Your task to perform on an android device: Search for macbook pro 13 inch on walmart, select the first entry, add it to the cart, then select checkout. Image 0: 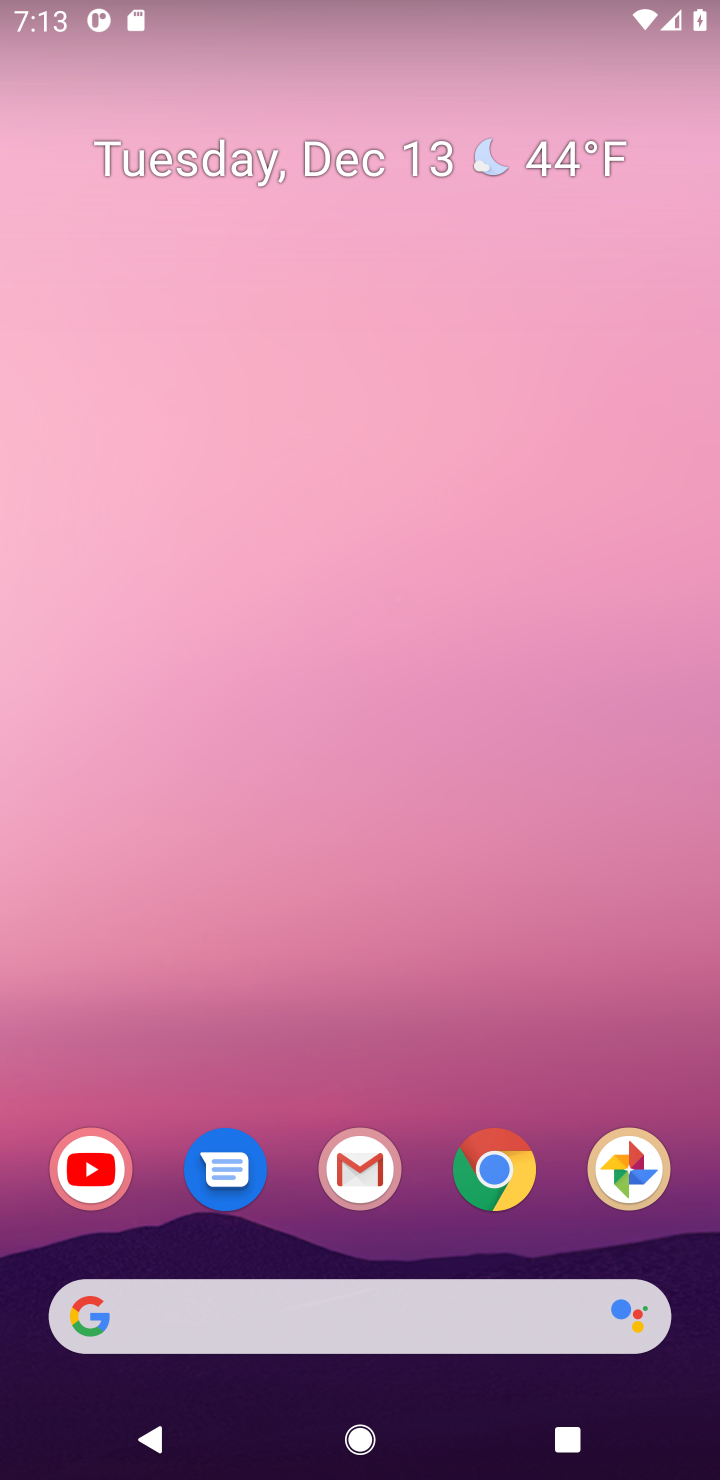
Step 0: click (511, 1159)
Your task to perform on an android device: Search for macbook pro 13 inch on walmart, select the first entry, add it to the cart, then select checkout. Image 1: 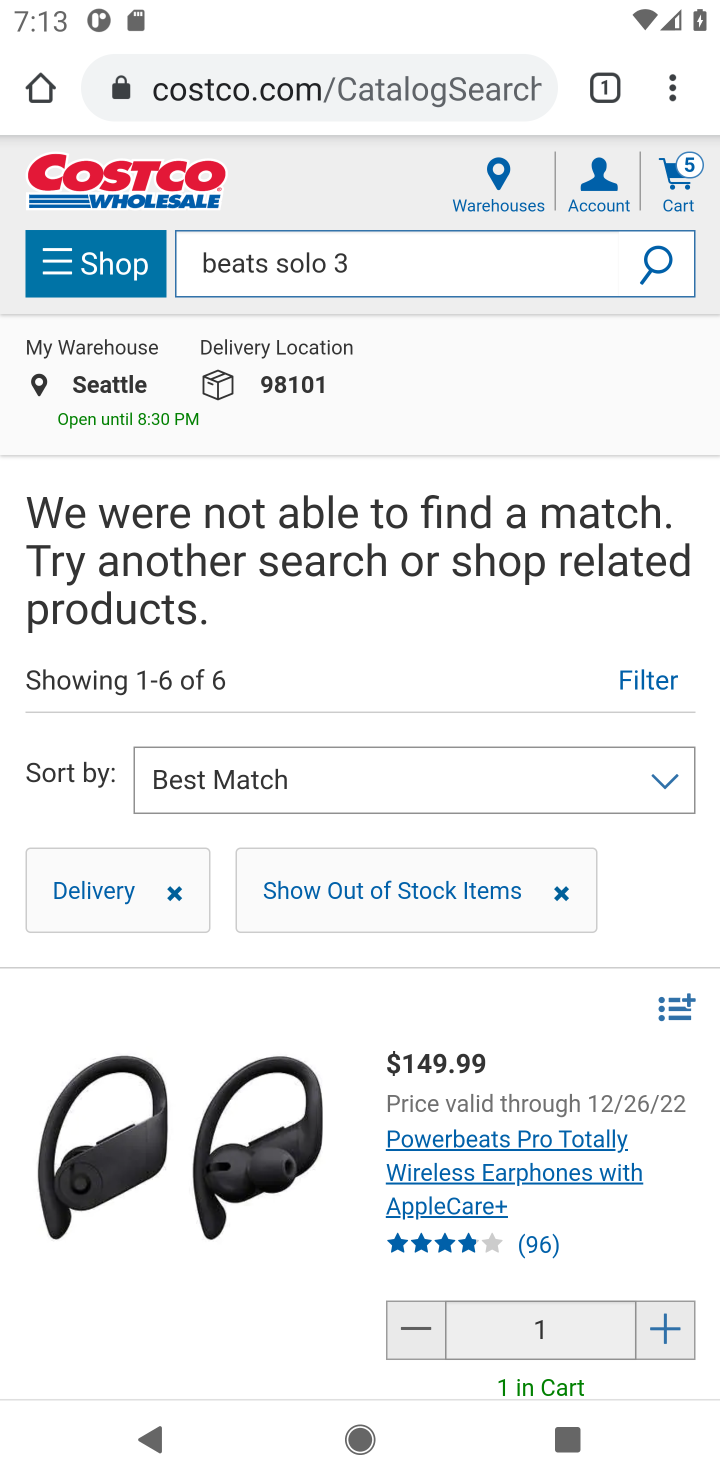
Step 1: click (365, 80)
Your task to perform on an android device: Search for macbook pro 13 inch on walmart, select the first entry, add it to the cart, then select checkout. Image 2: 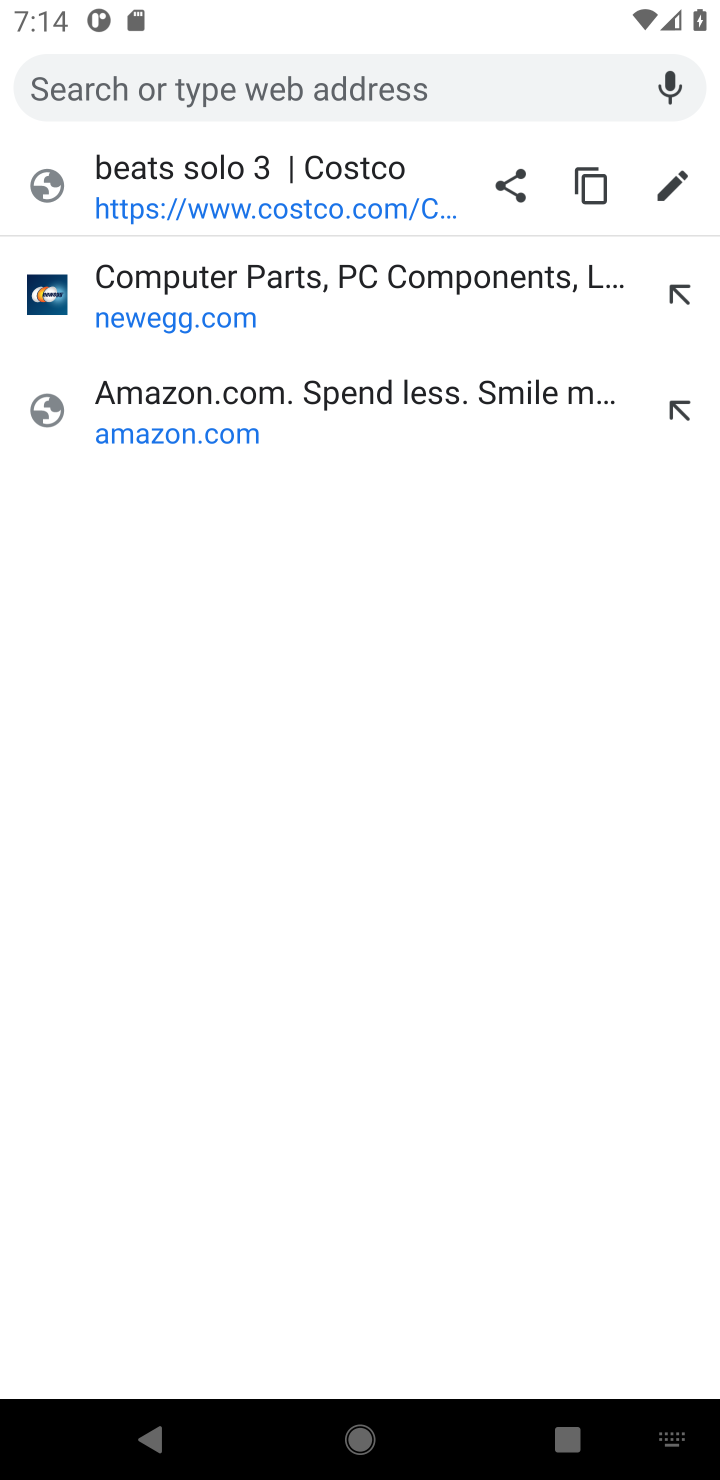
Step 2: type "walmart"
Your task to perform on an android device: Search for macbook pro 13 inch on walmart, select the first entry, add it to the cart, then select checkout. Image 3: 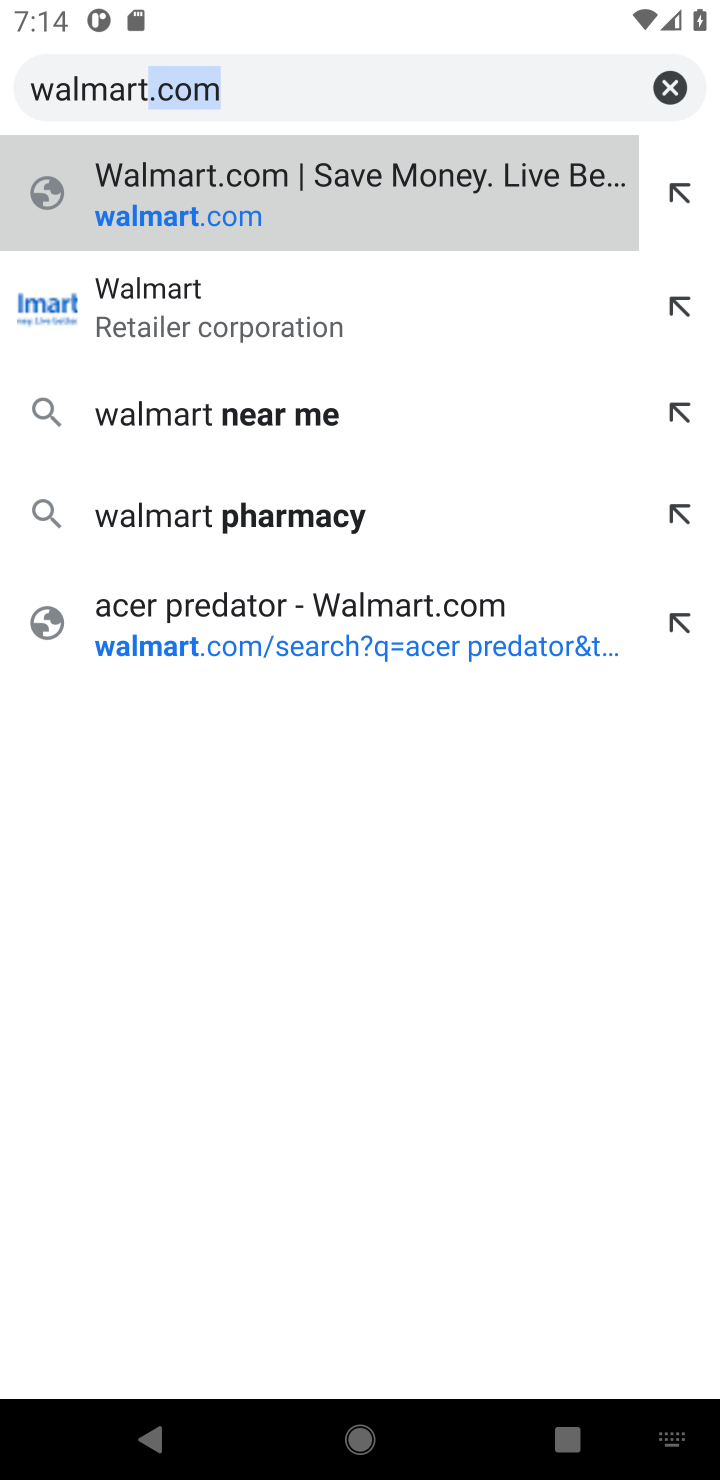
Step 3: click (318, 180)
Your task to perform on an android device: Search for macbook pro 13 inch on walmart, select the first entry, add it to the cart, then select checkout. Image 4: 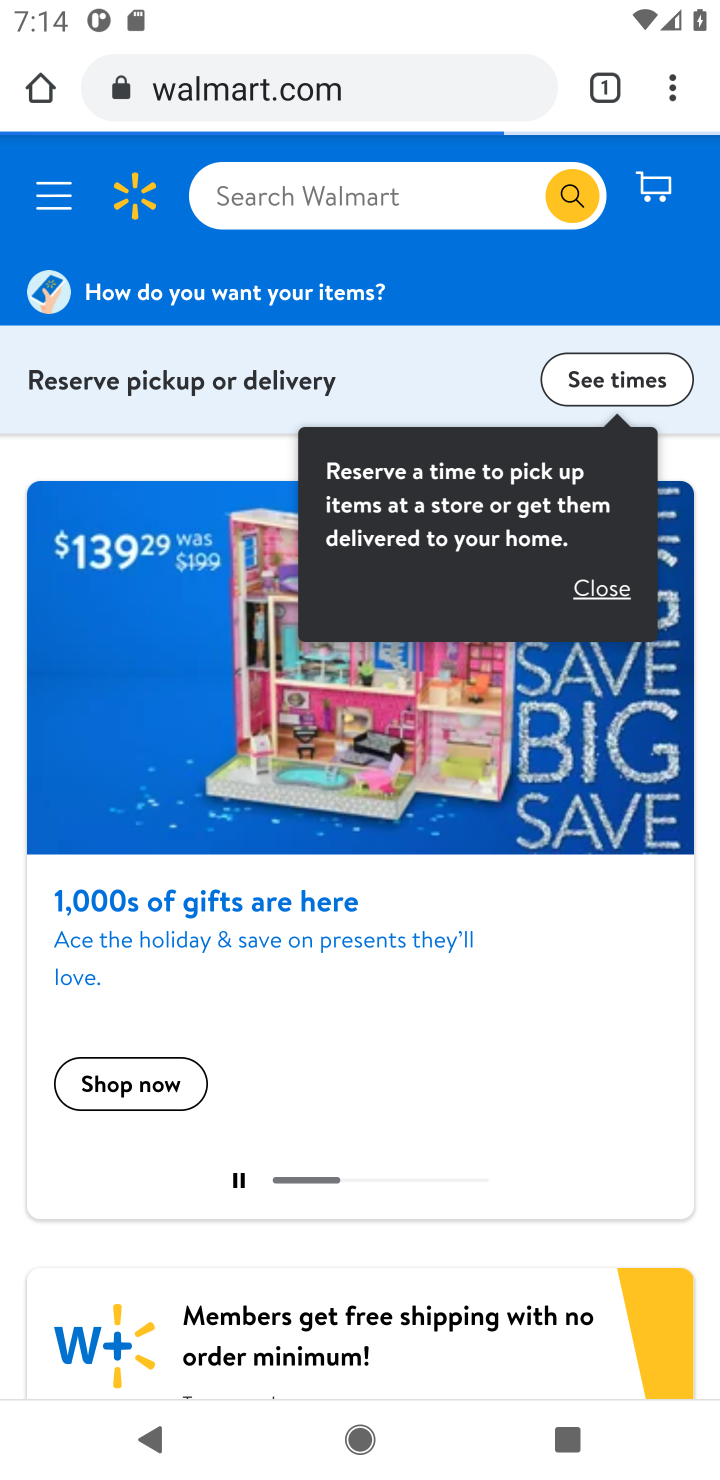
Step 4: click (318, 180)
Your task to perform on an android device: Search for macbook pro 13 inch on walmart, select the first entry, add it to the cart, then select checkout. Image 5: 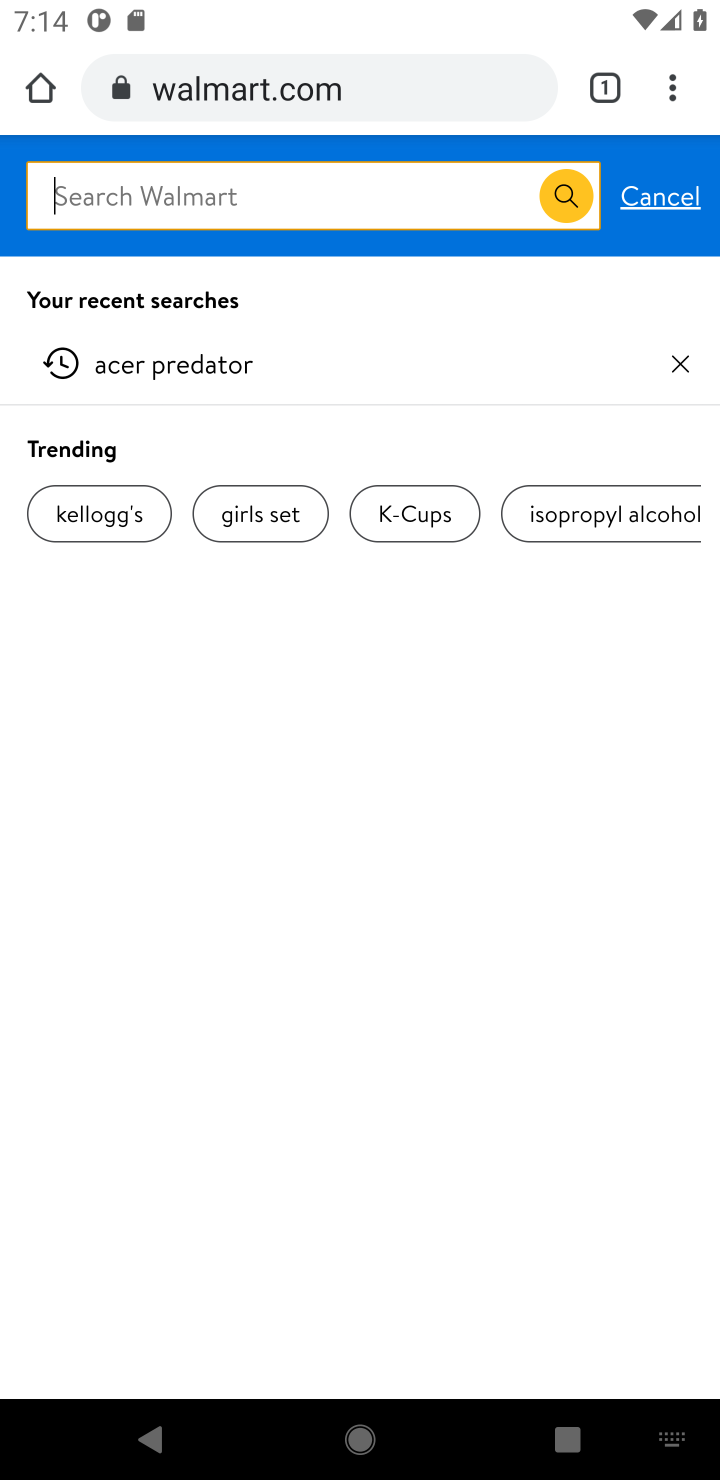
Step 5: type "macbook 13"
Your task to perform on an android device: Search for macbook pro 13 inch on walmart, select the first entry, add it to the cart, then select checkout. Image 6: 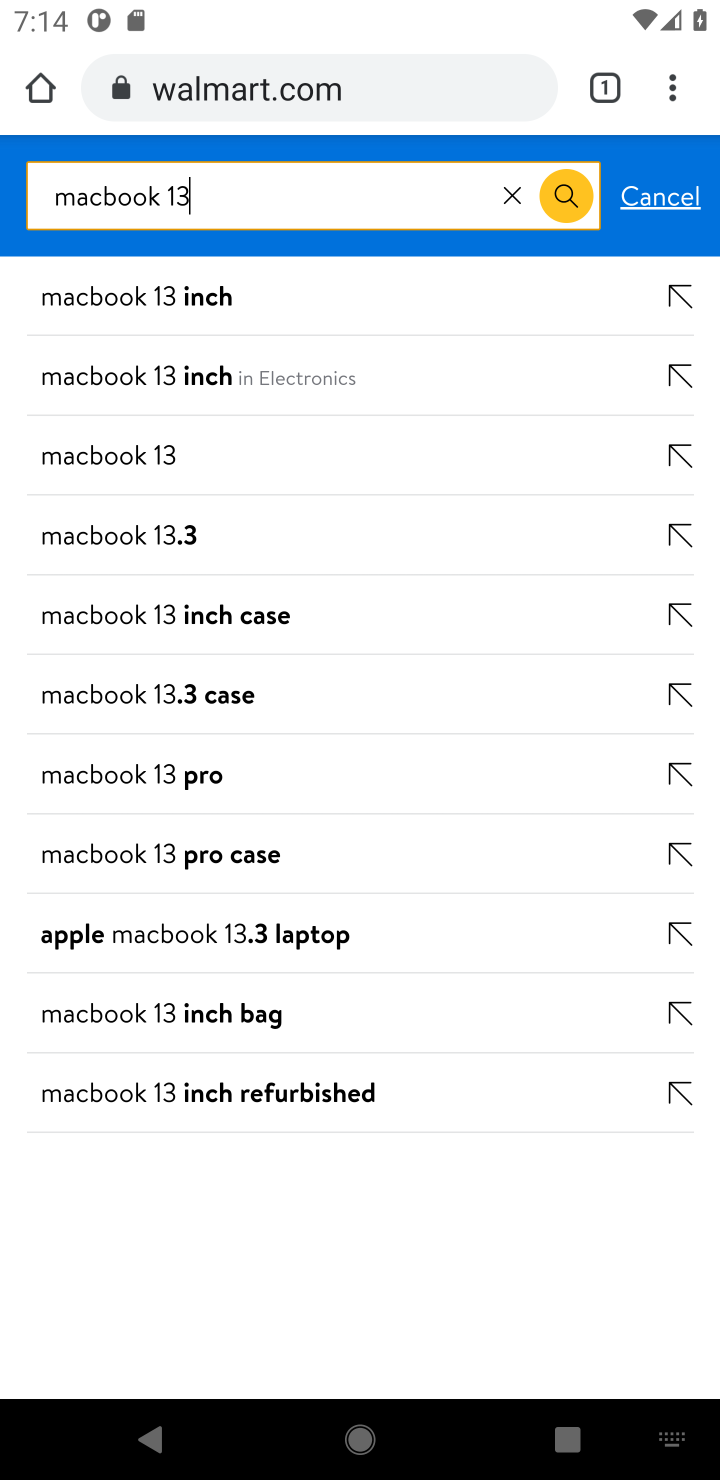
Step 6: click (558, 210)
Your task to perform on an android device: Search for macbook pro 13 inch on walmart, select the first entry, add it to the cart, then select checkout. Image 7: 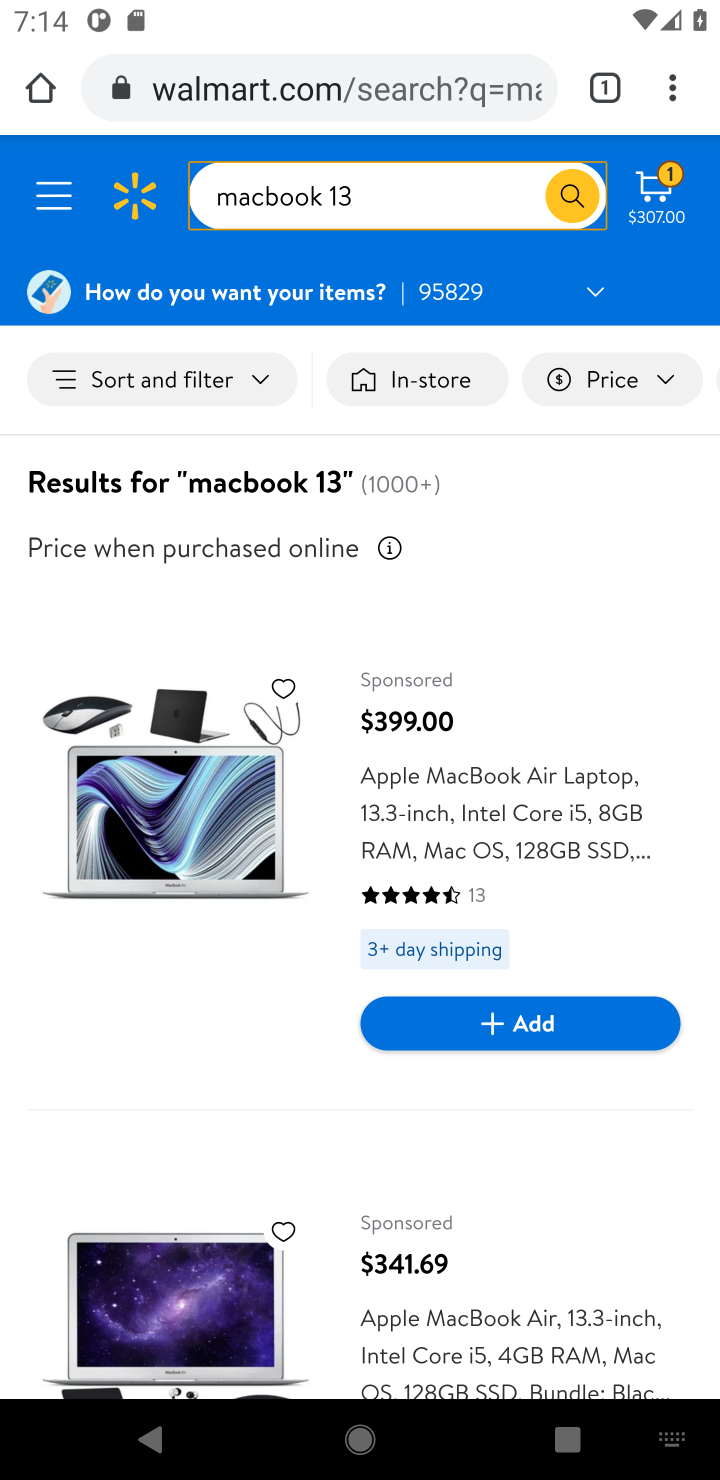
Step 7: click (482, 1039)
Your task to perform on an android device: Search for macbook pro 13 inch on walmart, select the first entry, add it to the cart, then select checkout. Image 8: 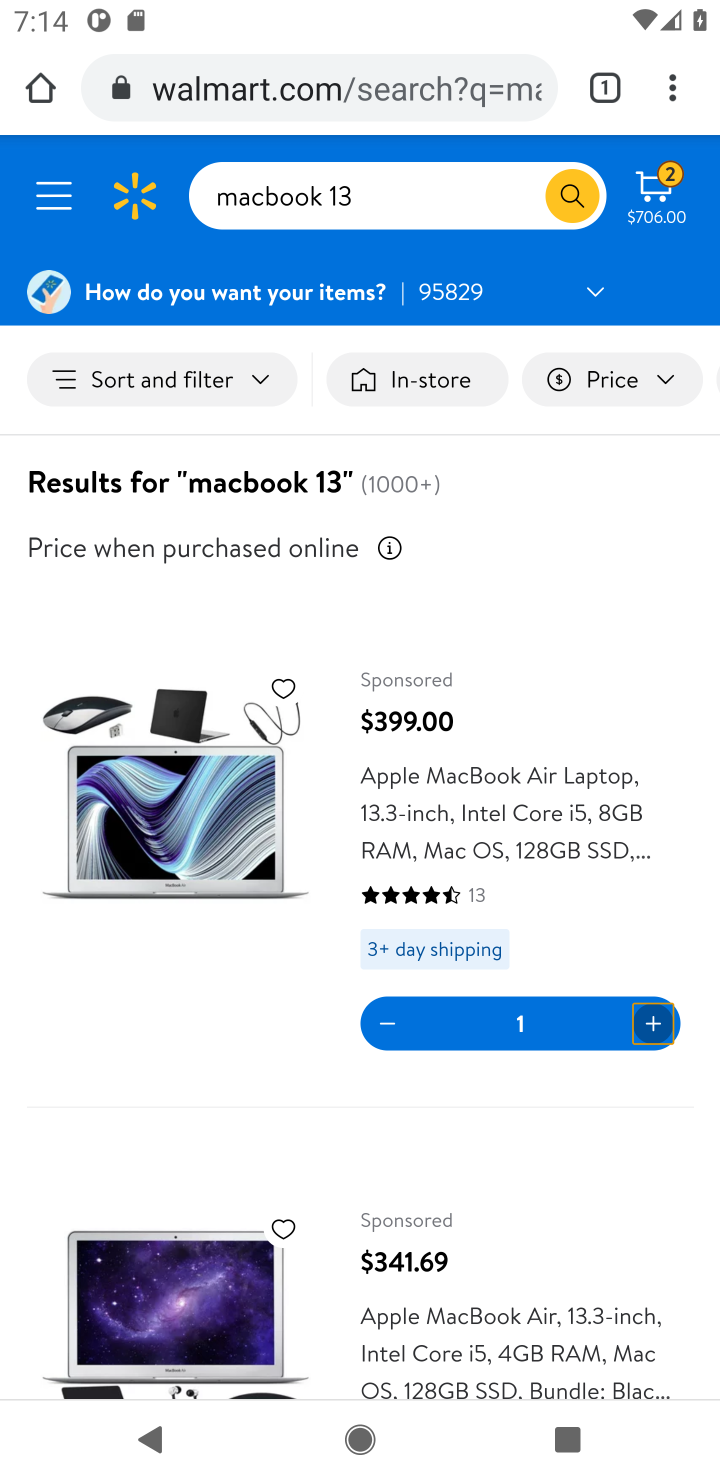
Step 8: task complete